Your task to perform on an android device: What's the weather today? Image 0: 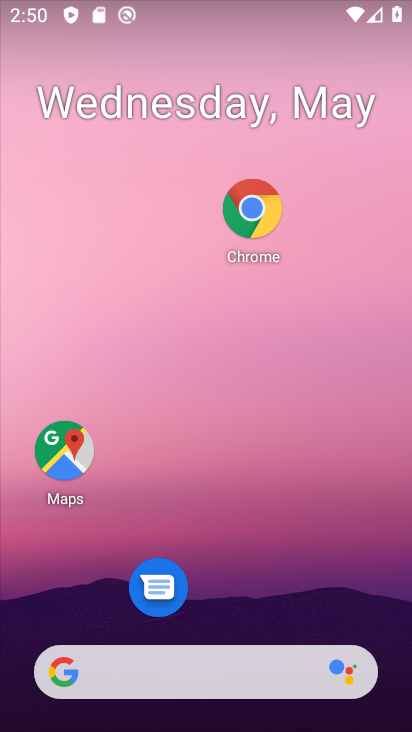
Step 0: click (249, 687)
Your task to perform on an android device: What's the weather today? Image 1: 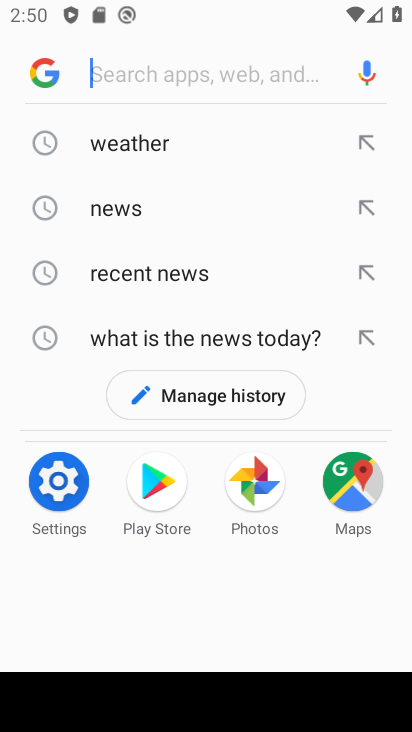
Step 1: click (137, 150)
Your task to perform on an android device: What's the weather today? Image 2: 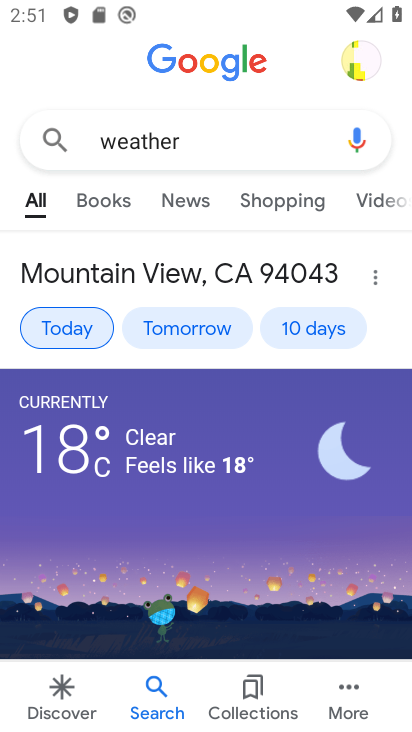
Step 2: task complete